Your task to perform on an android device: Open Chrome and go to settings Image 0: 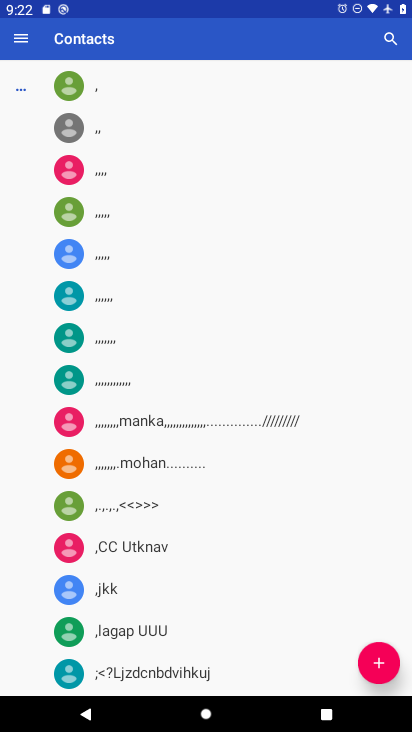
Step 0: press home button
Your task to perform on an android device: Open Chrome and go to settings Image 1: 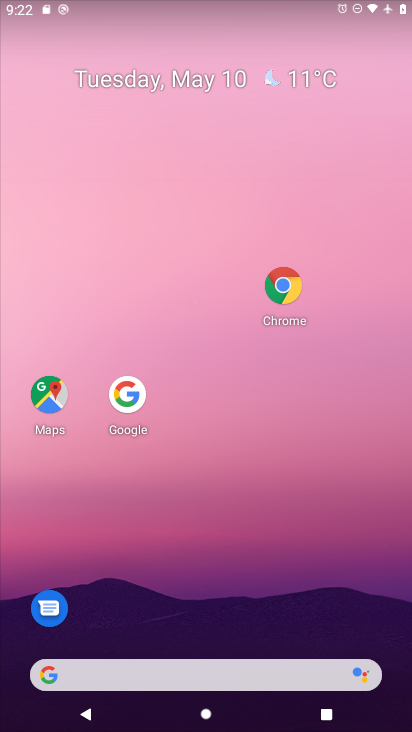
Step 1: click (288, 286)
Your task to perform on an android device: Open Chrome and go to settings Image 2: 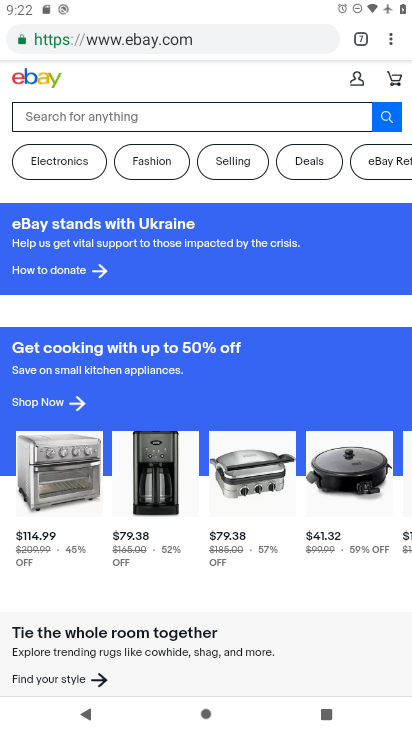
Step 2: task complete